Your task to perform on an android device: Open accessibility settings Image 0: 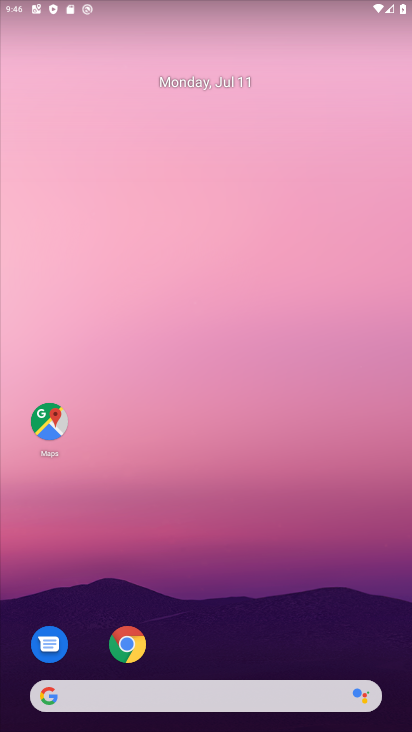
Step 0: drag from (213, 659) to (209, 161)
Your task to perform on an android device: Open accessibility settings Image 1: 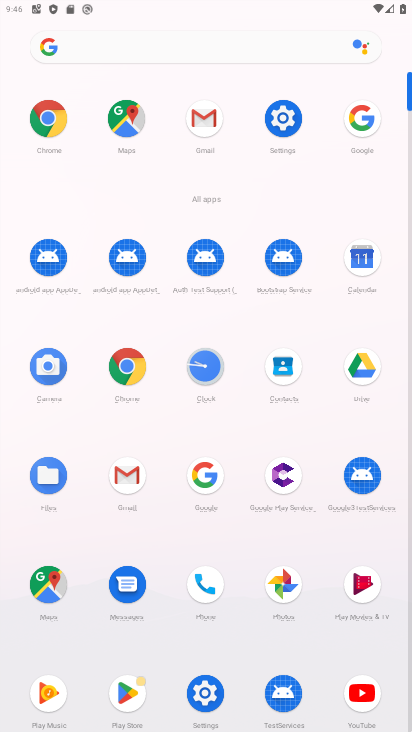
Step 1: click (282, 114)
Your task to perform on an android device: Open accessibility settings Image 2: 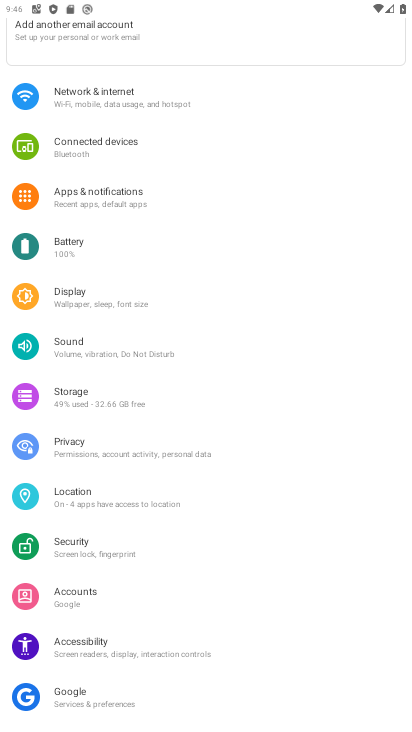
Step 2: click (93, 638)
Your task to perform on an android device: Open accessibility settings Image 3: 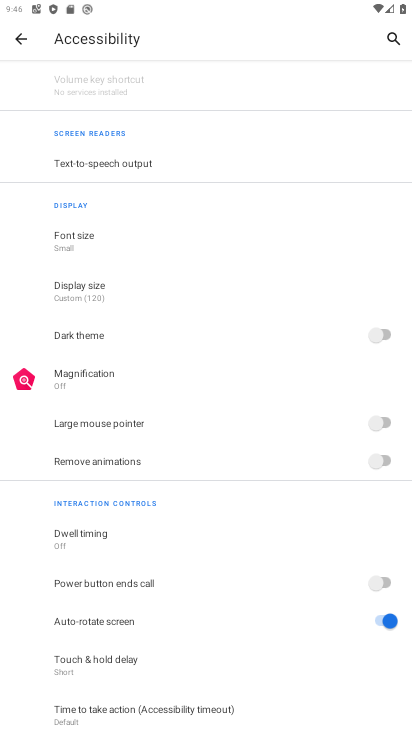
Step 3: task complete